Your task to perform on an android device: Open Youtube and go to "Your channel" Image 0: 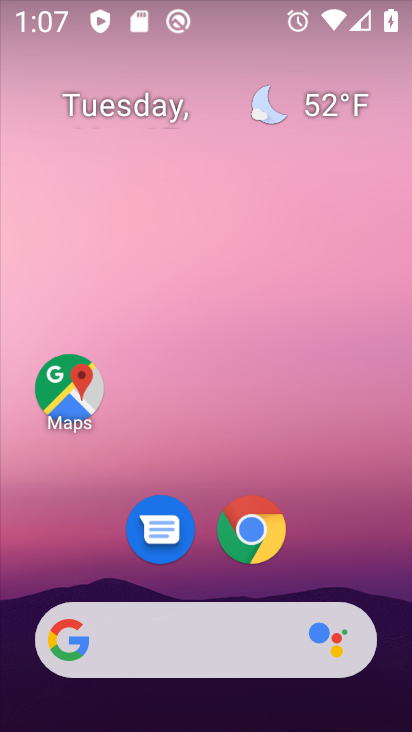
Step 0: drag from (193, 613) to (137, 7)
Your task to perform on an android device: Open Youtube and go to "Your channel" Image 1: 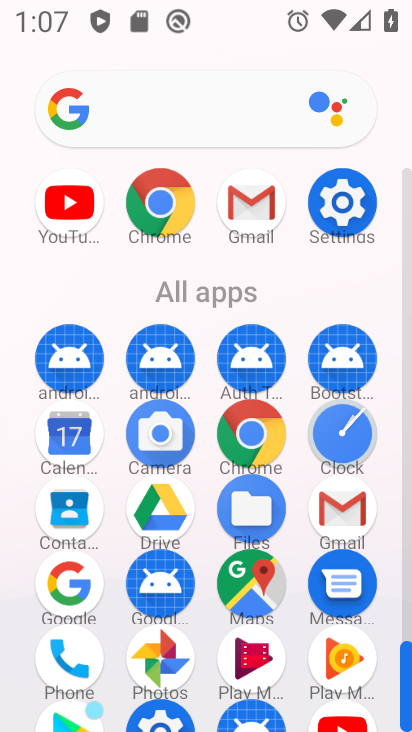
Step 1: click (85, 202)
Your task to perform on an android device: Open Youtube and go to "Your channel" Image 2: 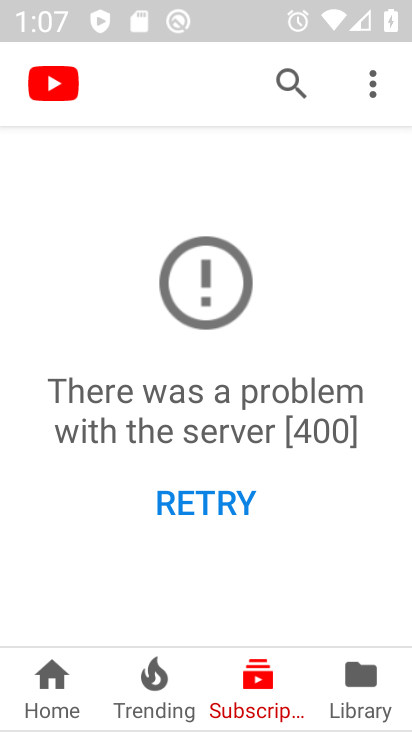
Step 2: click (374, 700)
Your task to perform on an android device: Open Youtube and go to "Your channel" Image 3: 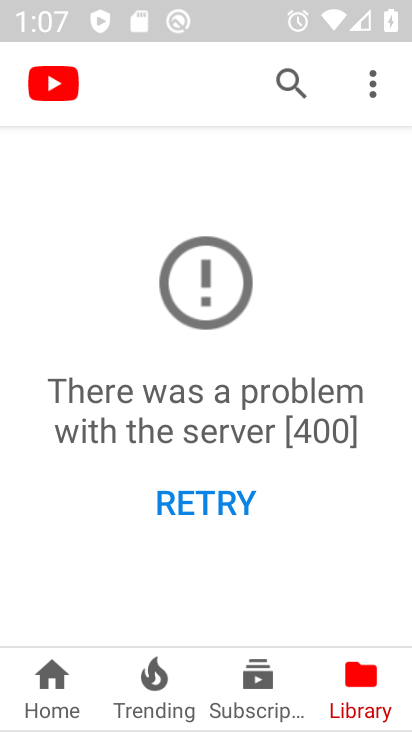
Step 3: task complete